Your task to perform on an android device: see tabs open on other devices in the chrome app Image 0: 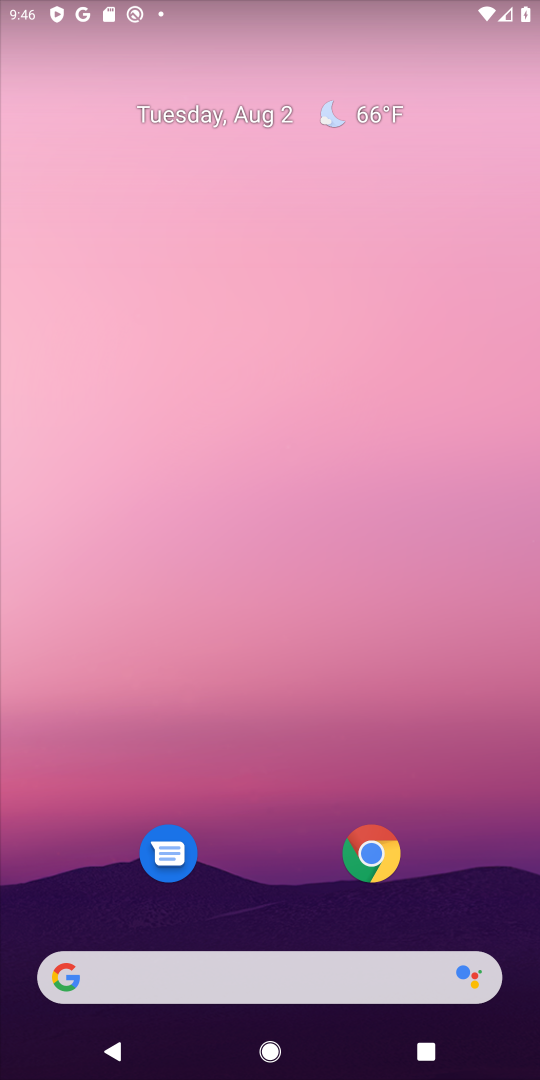
Step 0: click (378, 865)
Your task to perform on an android device: see tabs open on other devices in the chrome app Image 1: 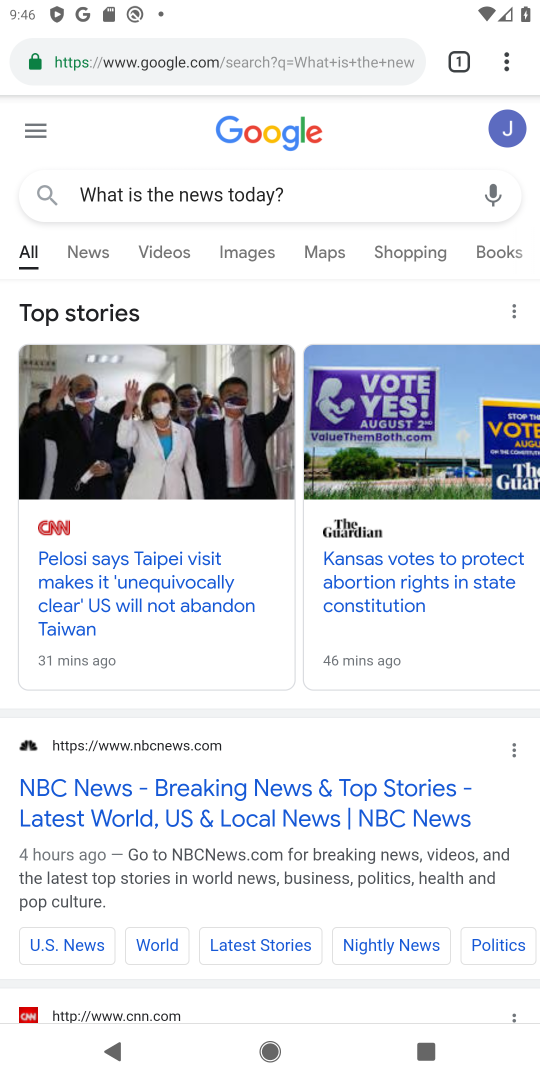
Step 1: click (502, 71)
Your task to perform on an android device: see tabs open on other devices in the chrome app Image 2: 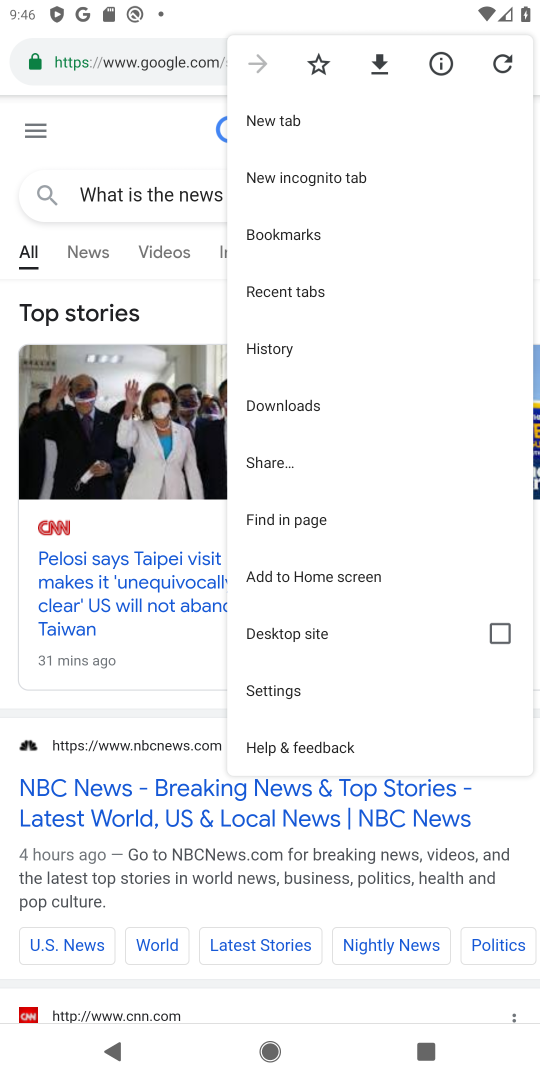
Step 2: click (304, 298)
Your task to perform on an android device: see tabs open on other devices in the chrome app Image 3: 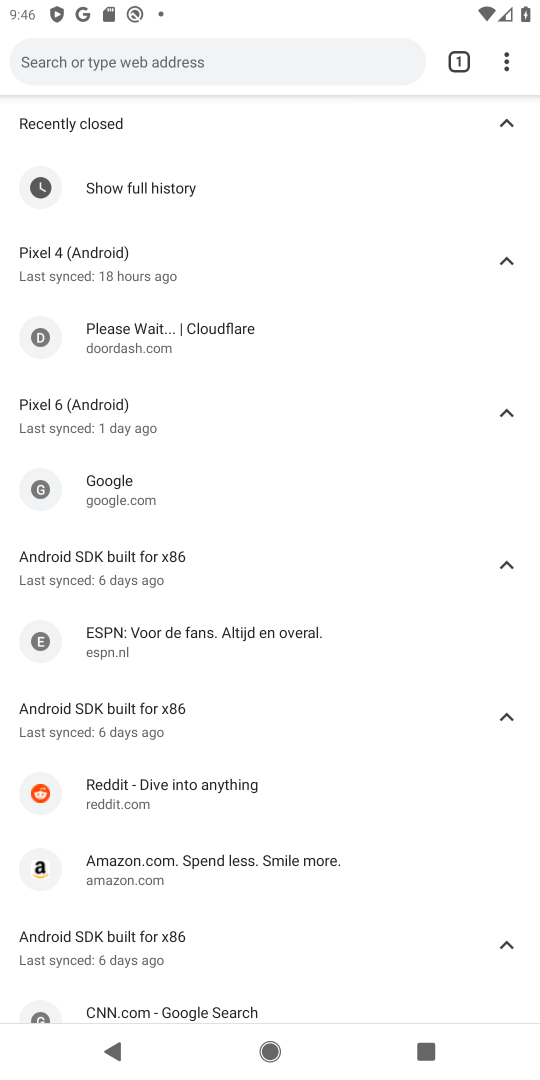
Step 3: task complete